Your task to perform on an android device: change notifications settings Image 0: 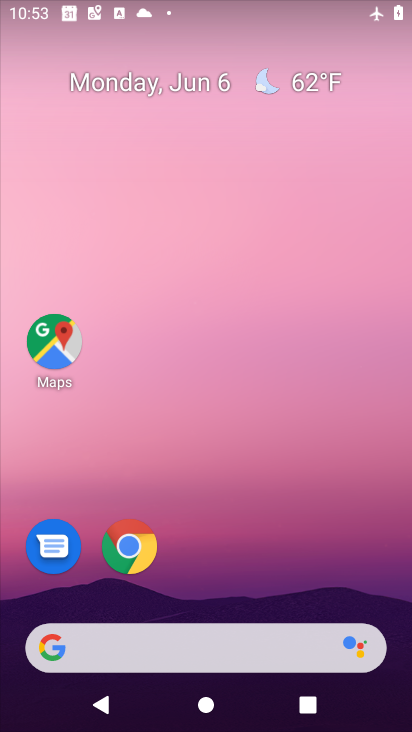
Step 0: drag from (376, 614) to (306, 83)
Your task to perform on an android device: change notifications settings Image 1: 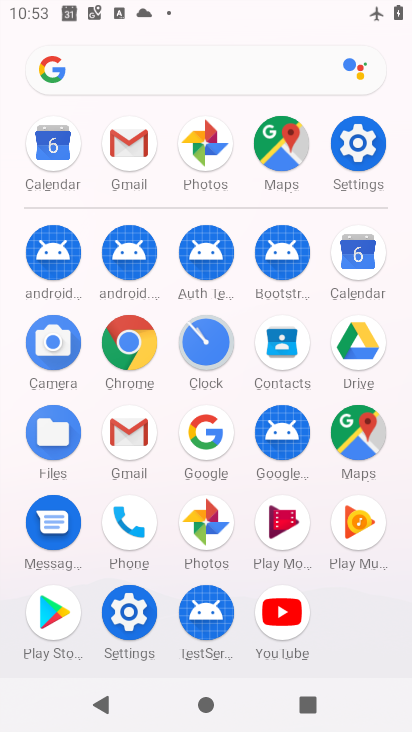
Step 1: click (130, 610)
Your task to perform on an android device: change notifications settings Image 2: 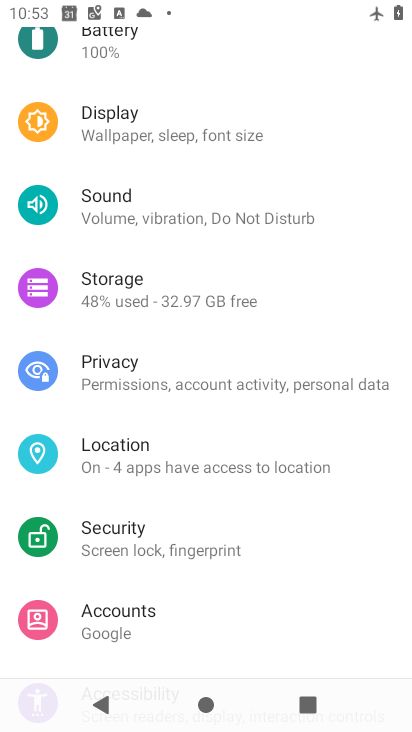
Step 2: drag from (311, 114) to (274, 339)
Your task to perform on an android device: change notifications settings Image 3: 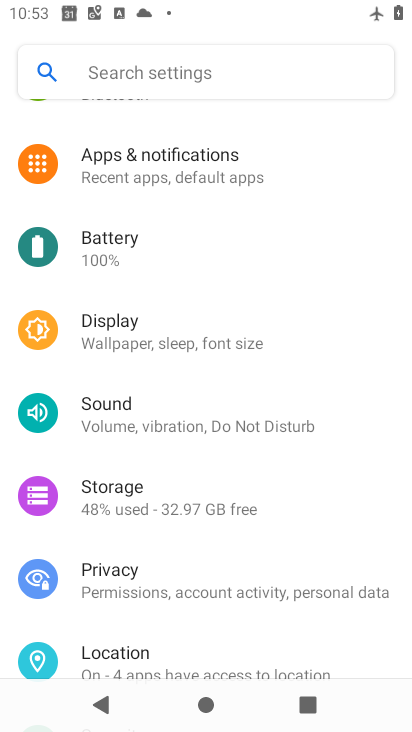
Step 3: click (120, 177)
Your task to perform on an android device: change notifications settings Image 4: 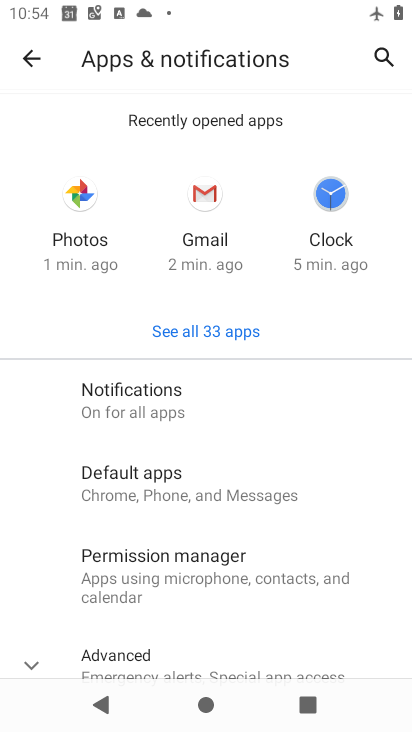
Step 4: click (130, 402)
Your task to perform on an android device: change notifications settings Image 5: 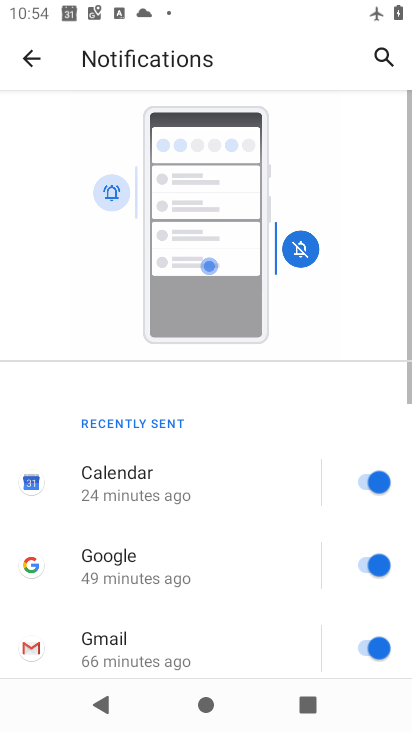
Step 5: drag from (254, 609) to (266, 128)
Your task to perform on an android device: change notifications settings Image 6: 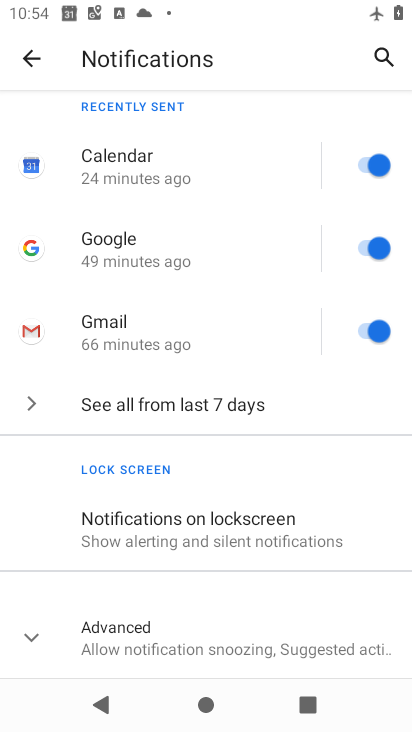
Step 6: click (36, 630)
Your task to perform on an android device: change notifications settings Image 7: 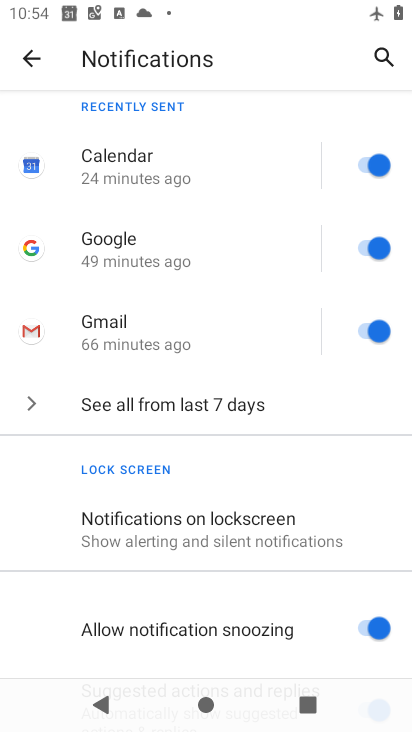
Step 7: drag from (336, 636) to (325, 375)
Your task to perform on an android device: change notifications settings Image 8: 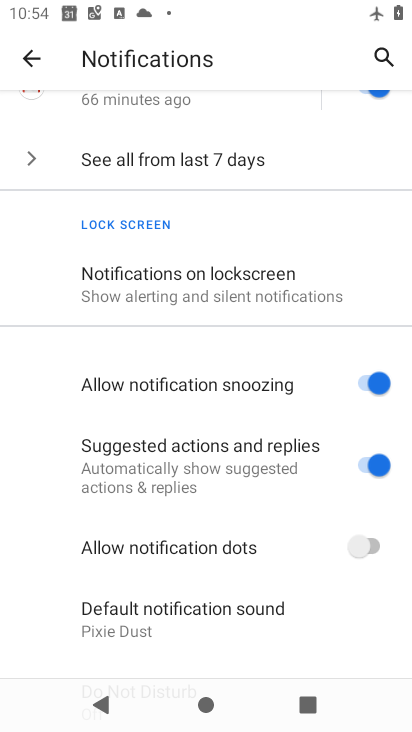
Step 8: click (376, 540)
Your task to perform on an android device: change notifications settings Image 9: 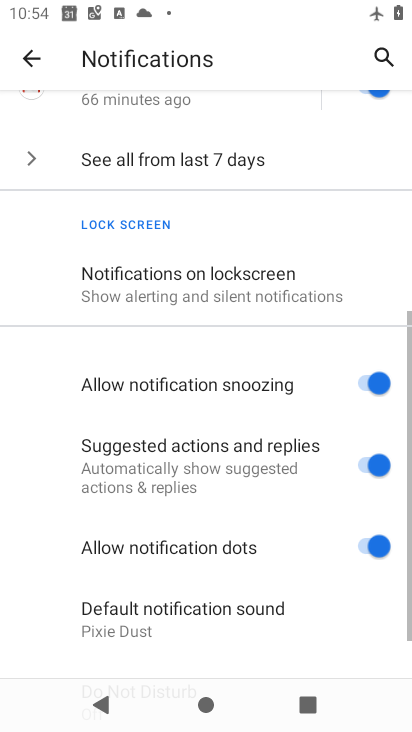
Step 9: click (361, 375)
Your task to perform on an android device: change notifications settings Image 10: 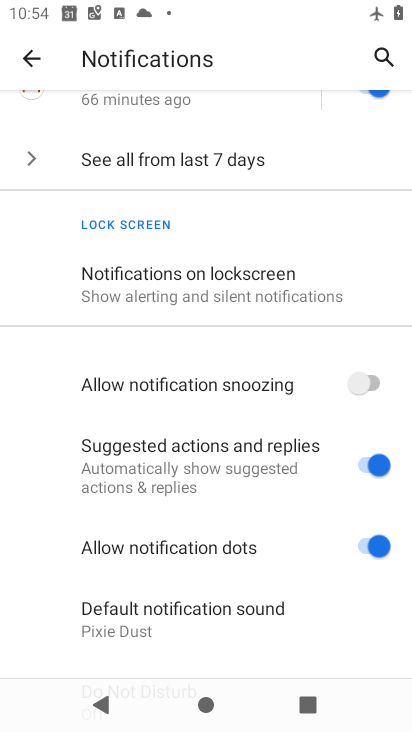
Step 10: task complete